Your task to perform on an android device: toggle javascript in the chrome app Image 0: 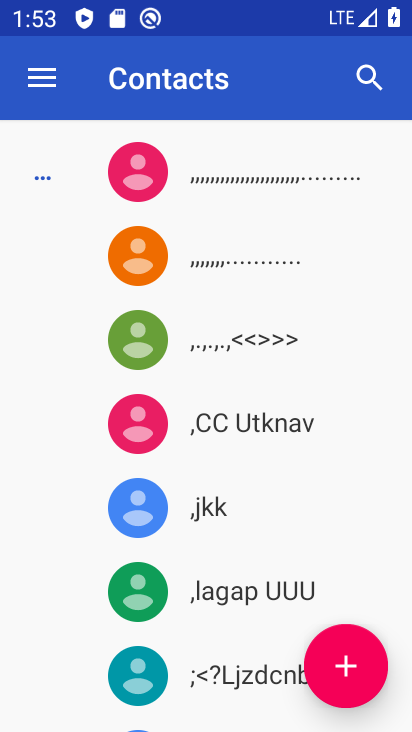
Step 0: press home button
Your task to perform on an android device: toggle javascript in the chrome app Image 1: 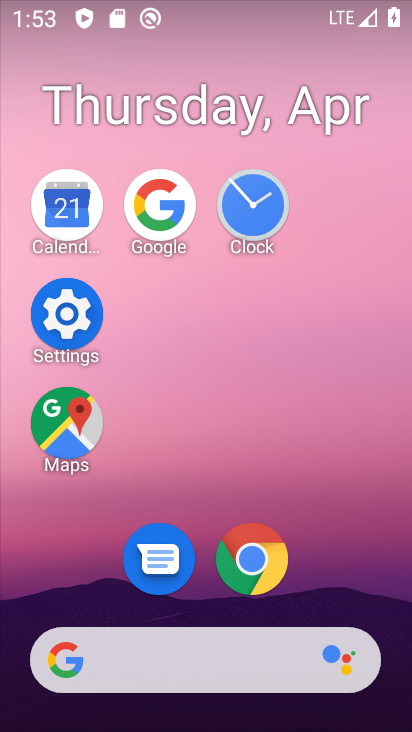
Step 1: click (237, 572)
Your task to perform on an android device: toggle javascript in the chrome app Image 2: 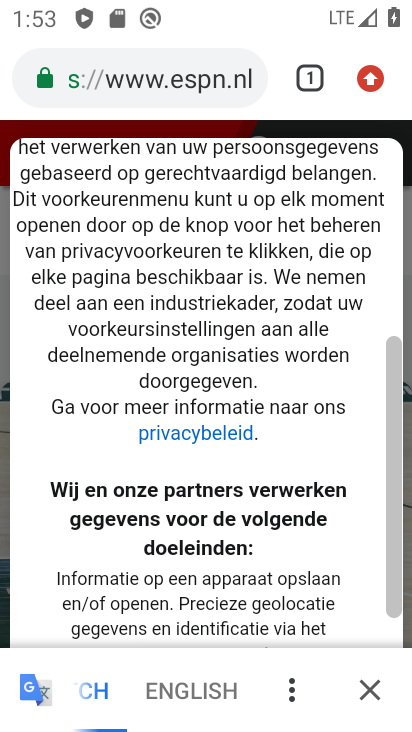
Step 2: click (365, 90)
Your task to perform on an android device: toggle javascript in the chrome app Image 3: 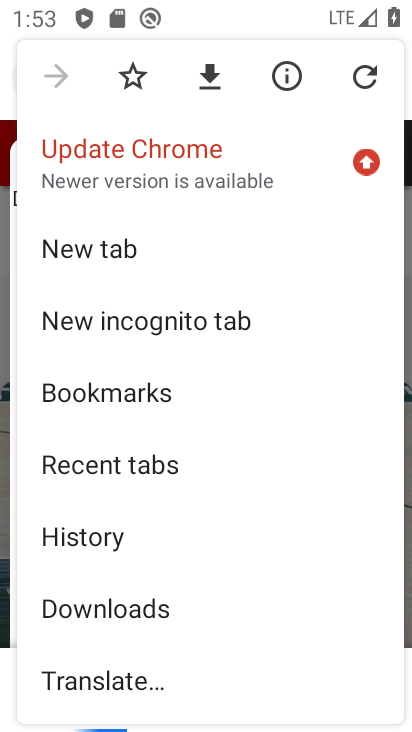
Step 3: drag from (192, 620) to (265, 110)
Your task to perform on an android device: toggle javascript in the chrome app Image 4: 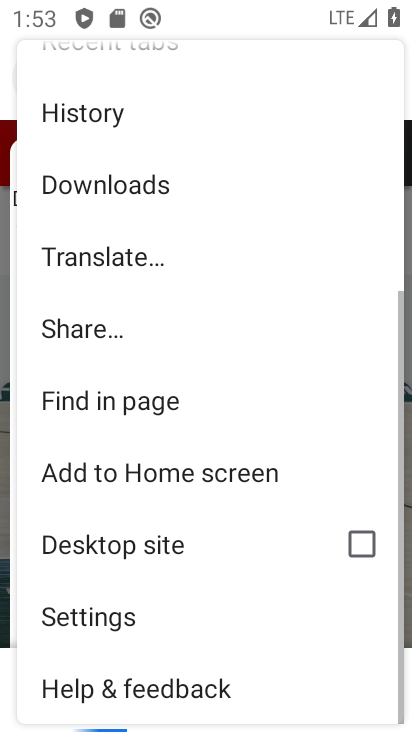
Step 4: click (158, 606)
Your task to perform on an android device: toggle javascript in the chrome app Image 5: 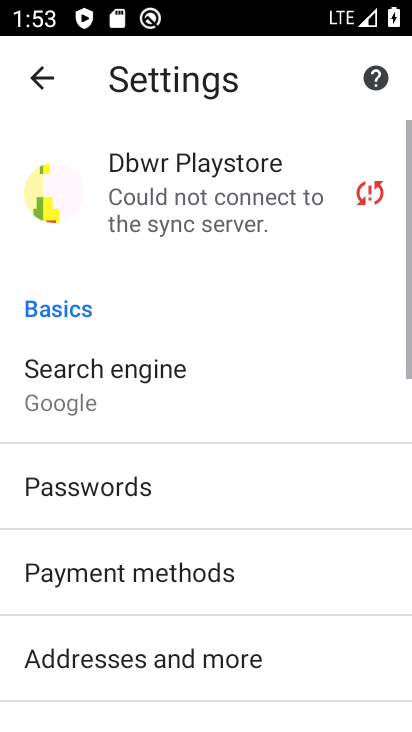
Step 5: drag from (159, 599) to (195, 237)
Your task to perform on an android device: toggle javascript in the chrome app Image 6: 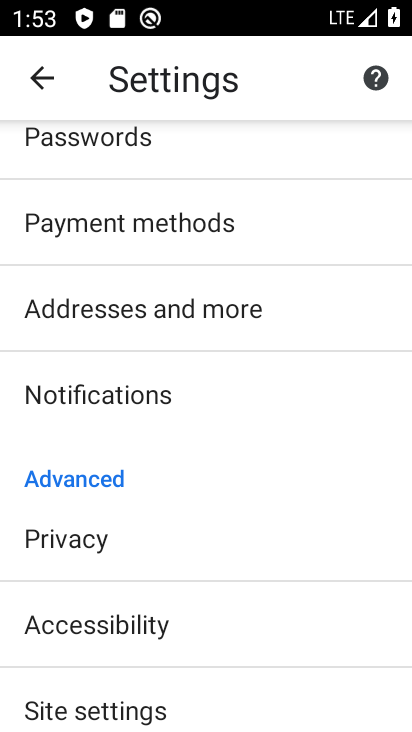
Step 6: click (157, 700)
Your task to perform on an android device: toggle javascript in the chrome app Image 7: 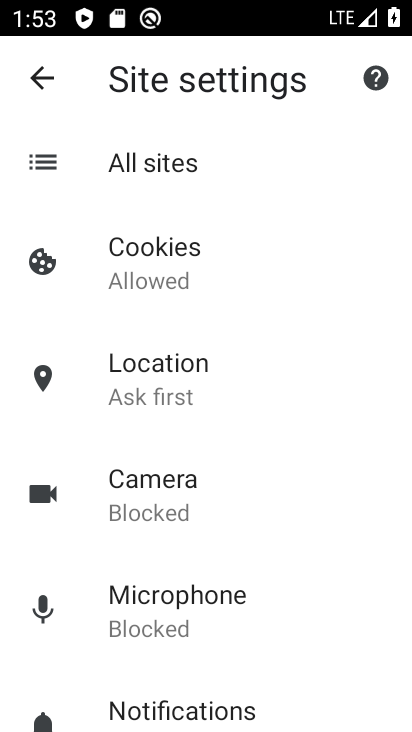
Step 7: drag from (253, 645) to (267, 225)
Your task to perform on an android device: toggle javascript in the chrome app Image 8: 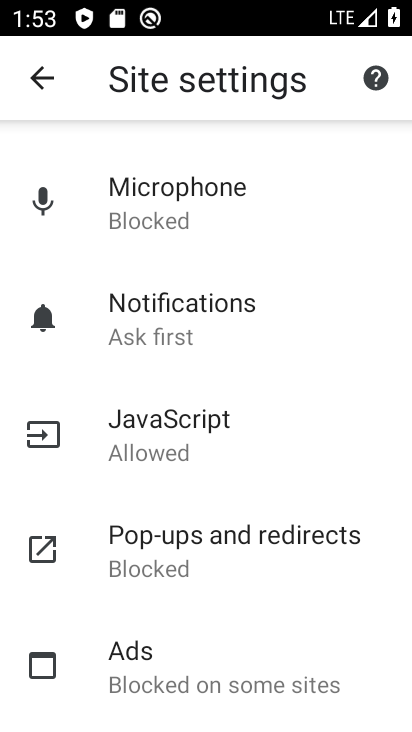
Step 8: click (209, 446)
Your task to perform on an android device: toggle javascript in the chrome app Image 9: 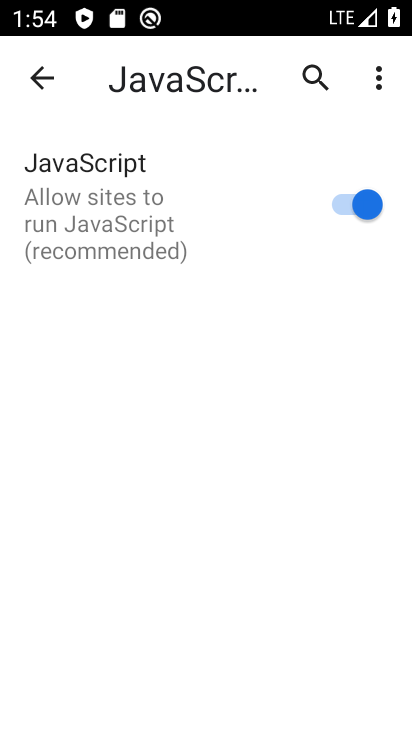
Step 9: click (358, 208)
Your task to perform on an android device: toggle javascript in the chrome app Image 10: 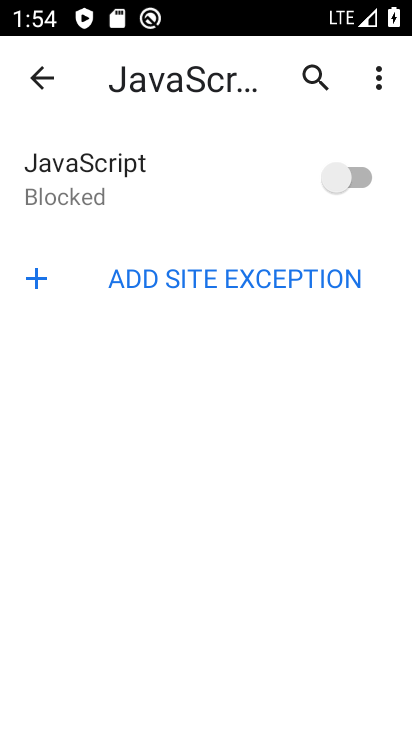
Step 10: task complete